Your task to perform on an android device: Search for vegetarian restaurants on Maps Image 0: 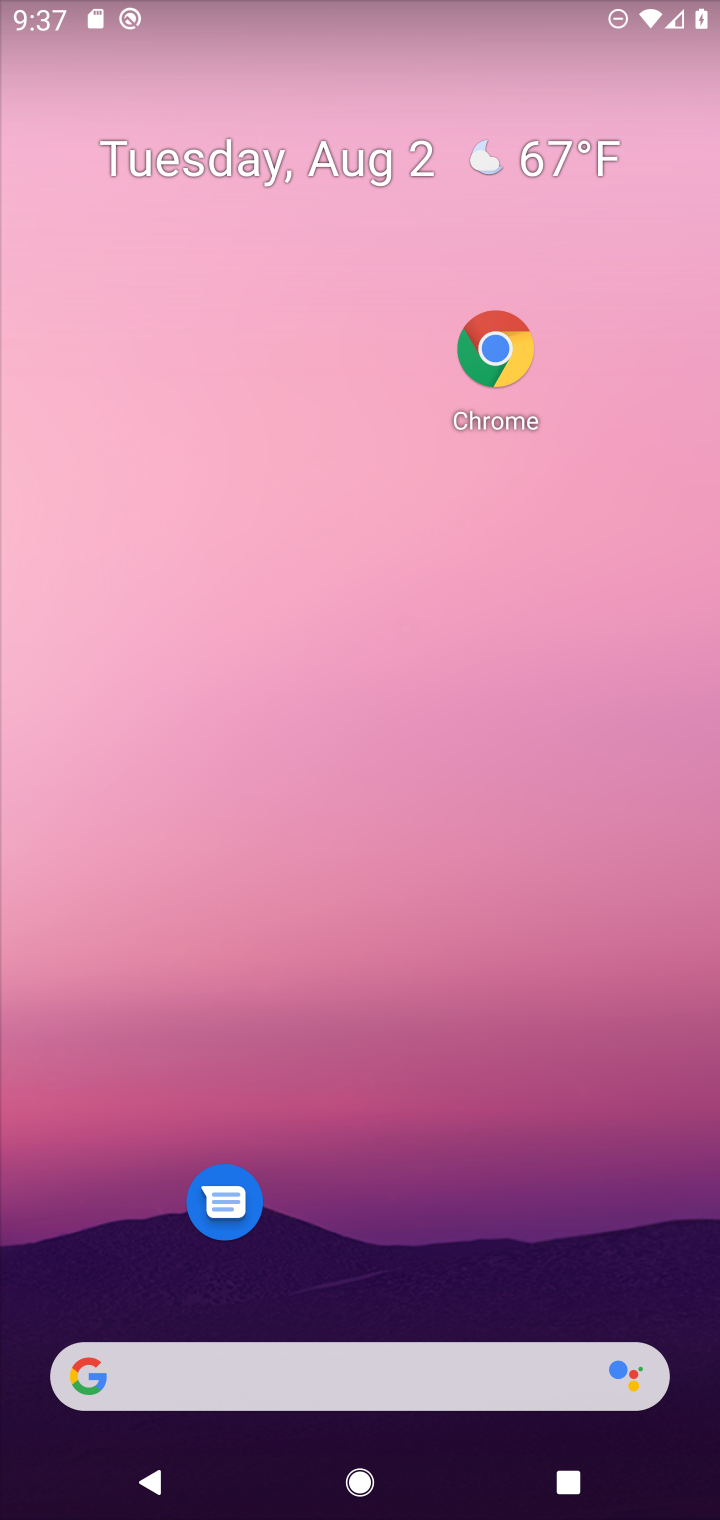
Step 0: drag from (423, 1114) to (442, 20)
Your task to perform on an android device: Search for vegetarian restaurants on Maps Image 1: 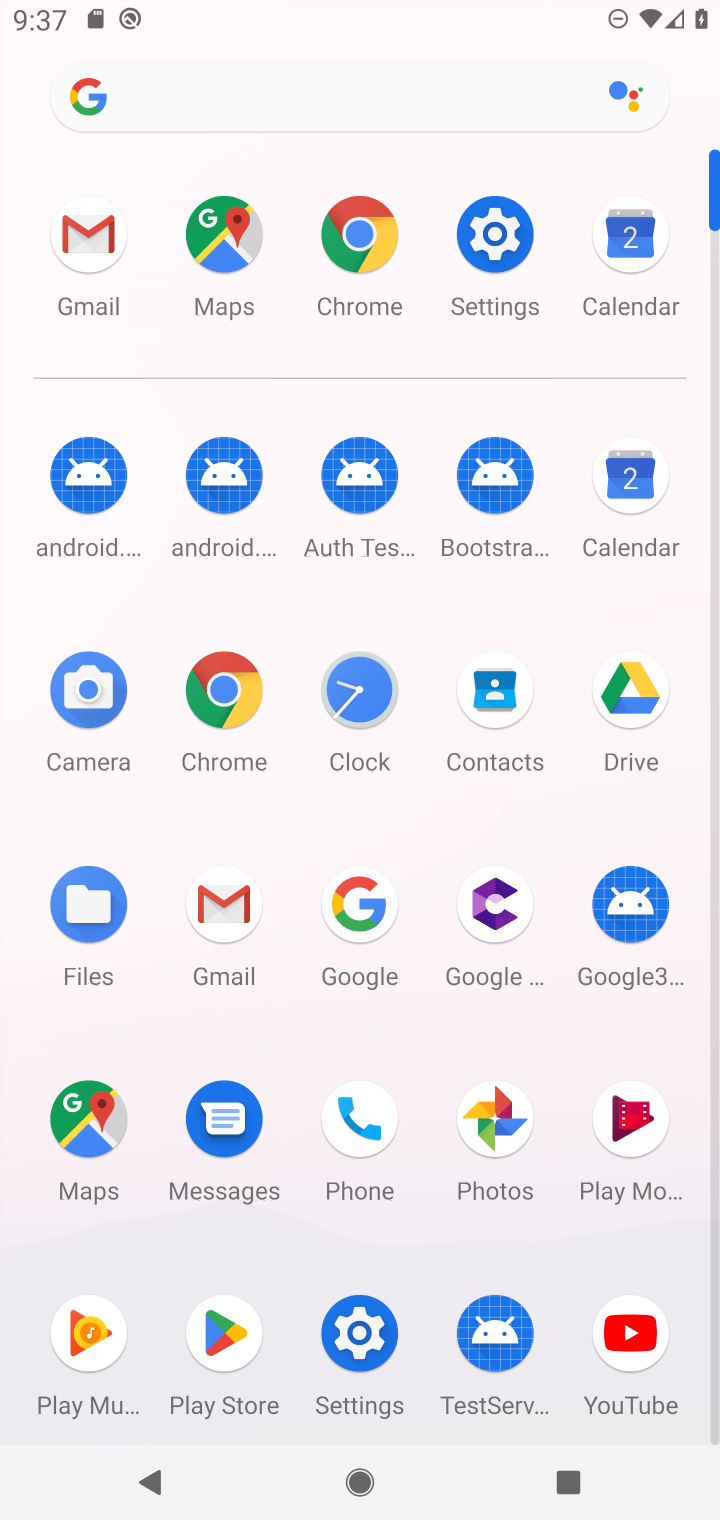
Step 1: click (227, 241)
Your task to perform on an android device: Search for vegetarian restaurants on Maps Image 2: 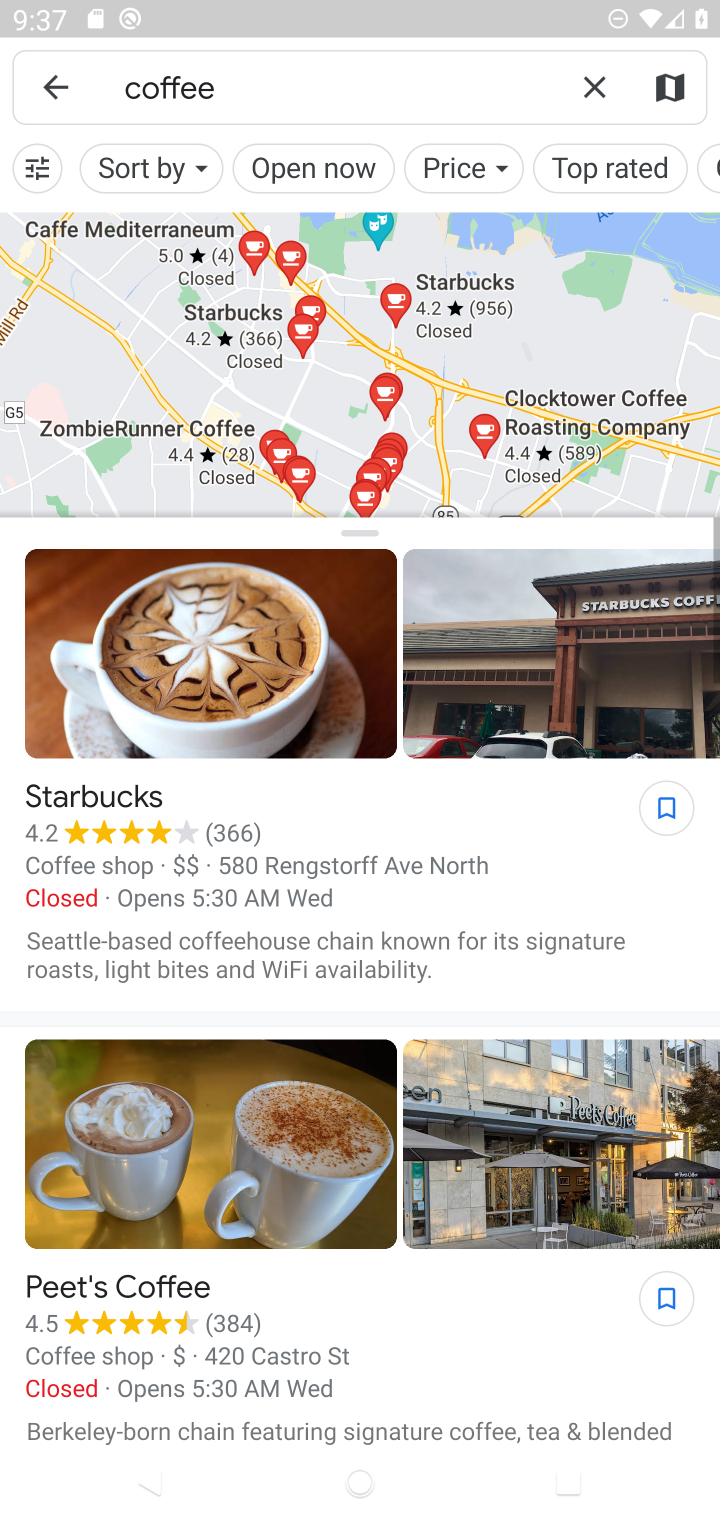
Step 2: click (602, 80)
Your task to perform on an android device: Search for vegetarian restaurants on Maps Image 3: 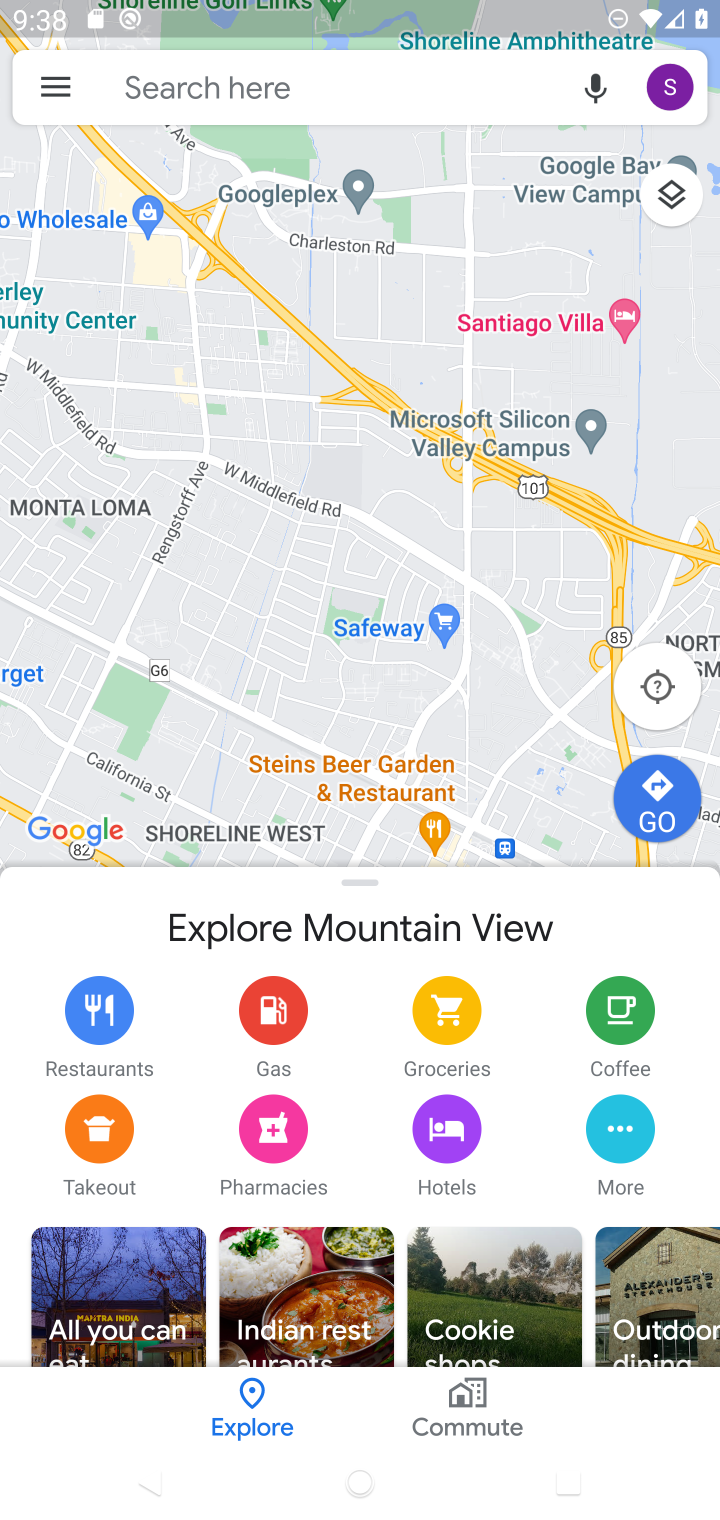
Step 3: click (198, 105)
Your task to perform on an android device: Search for vegetarian restaurants on Maps Image 4: 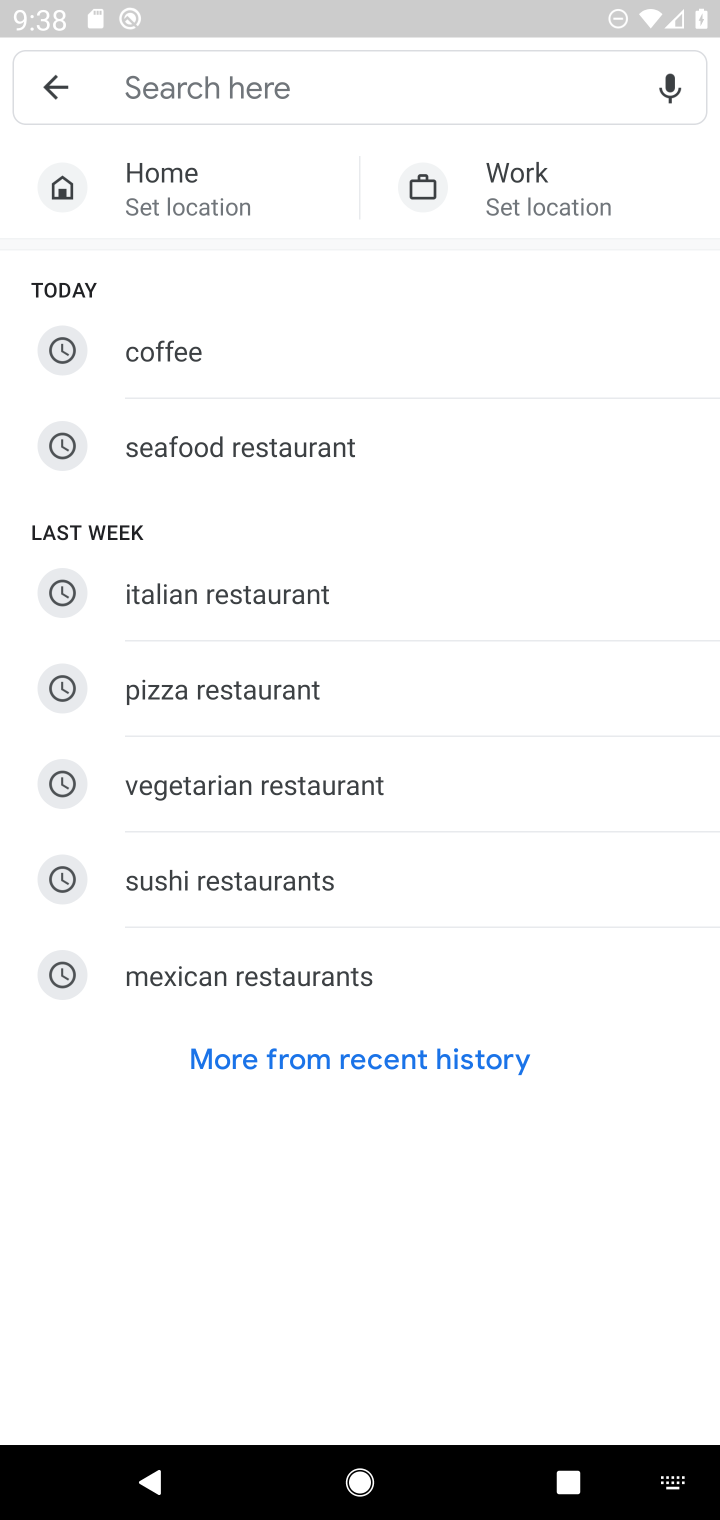
Step 4: type "vegetarian restaurants"
Your task to perform on an android device: Search for vegetarian restaurants on Maps Image 5: 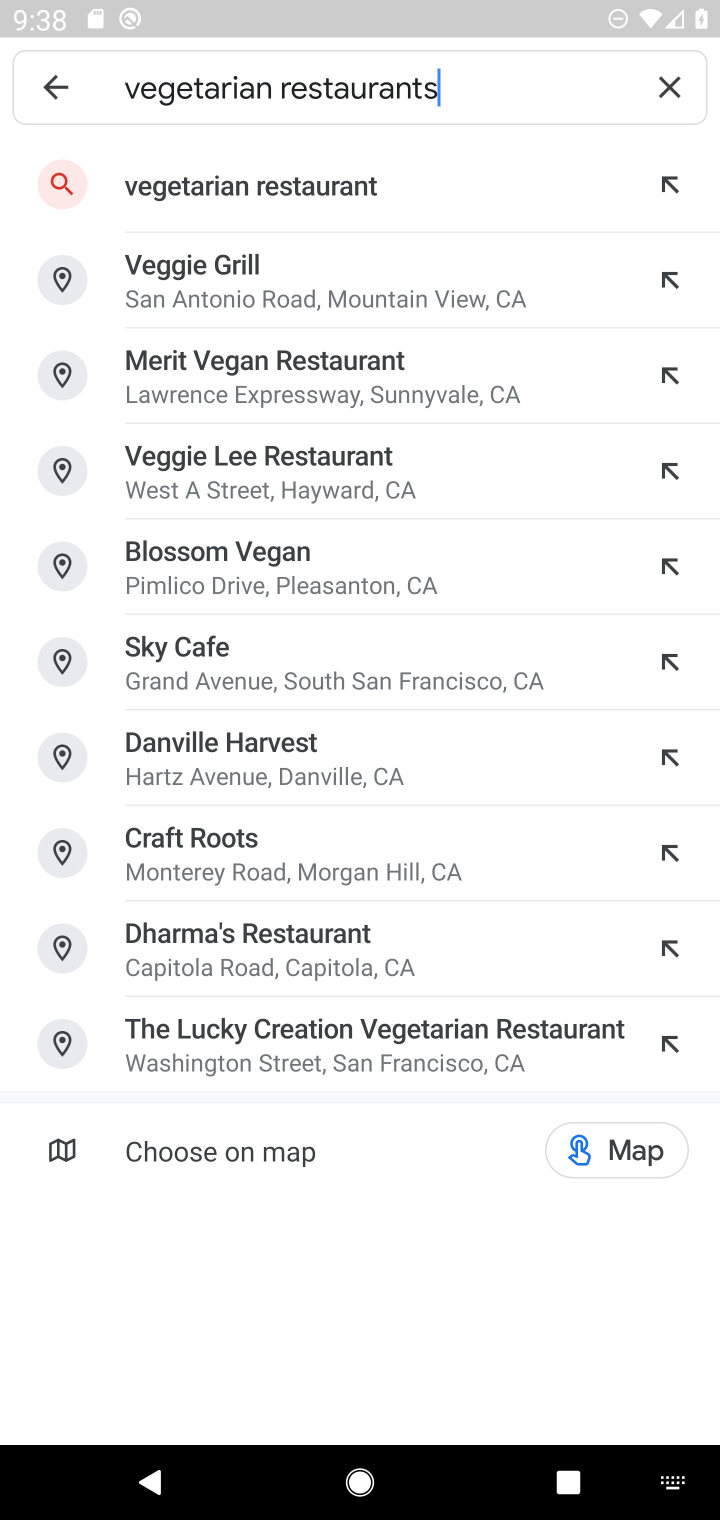
Step 5: click (174, 197)
Your task to perform on an android device: Search for vegetarian restaurants on Maps Image 6: 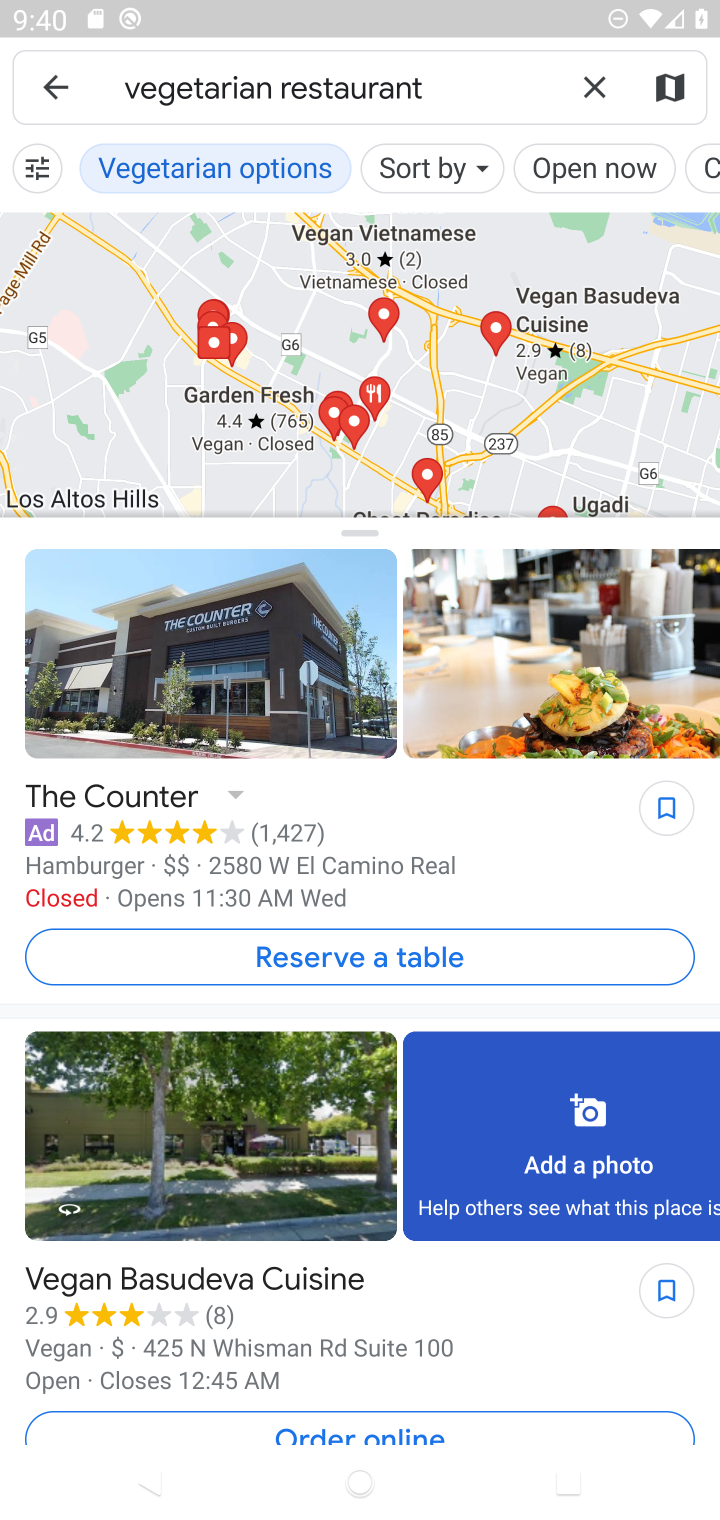
Step 6: task complete